Your task to perform on an android device: Show the shopping cart on walmart.com. Image 0: 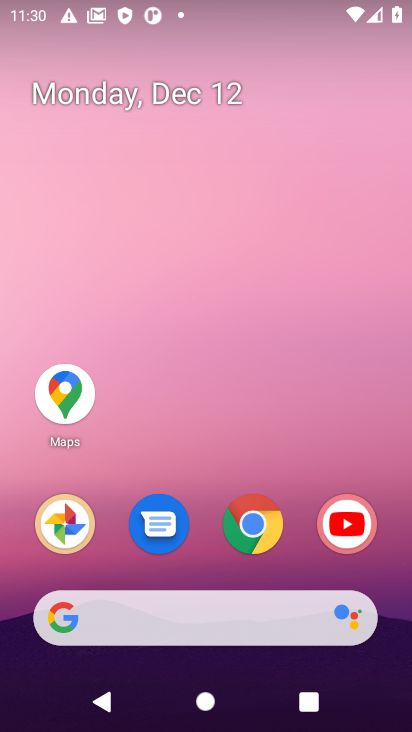
Step 0: click (258, 527)
Your task to perform on an android device: Show the shopping cart on walmart.com. Image 1: 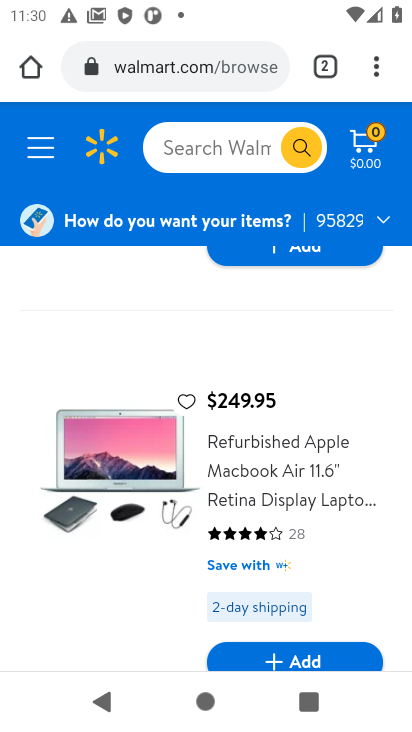
Step 1: click (363, 154)
Your task to perform on an android device: Show the shopping cart on walmart.com. Image 2: 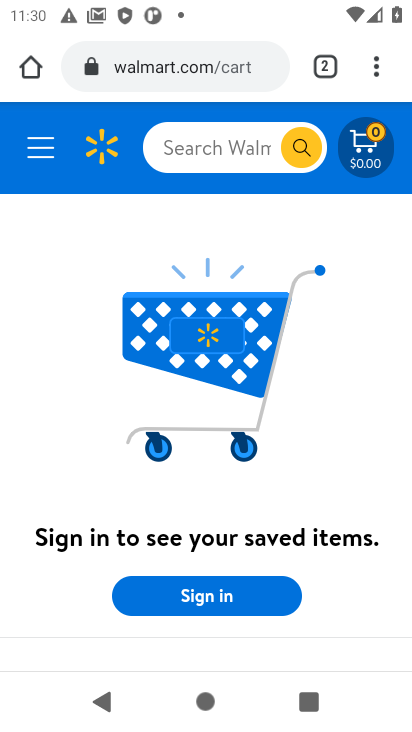
Step 2: task complete